Your task to perform on an android device: change the clock display to show seconds Image 0: 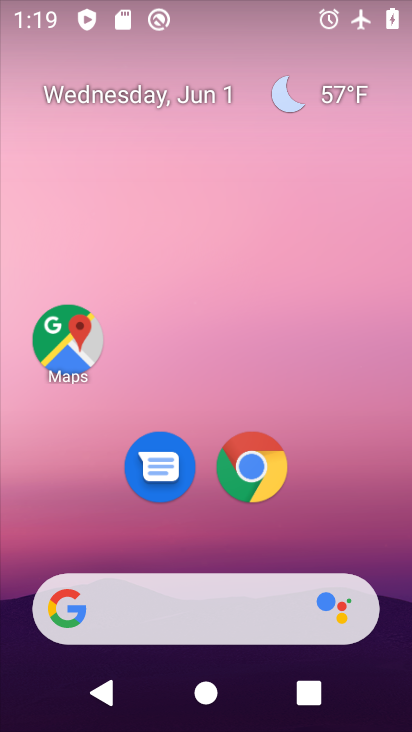
Step 0: drag from (380, 563) to (387, 184)
Your task to perform on an android device: change the clock display to show seconds Image 1: 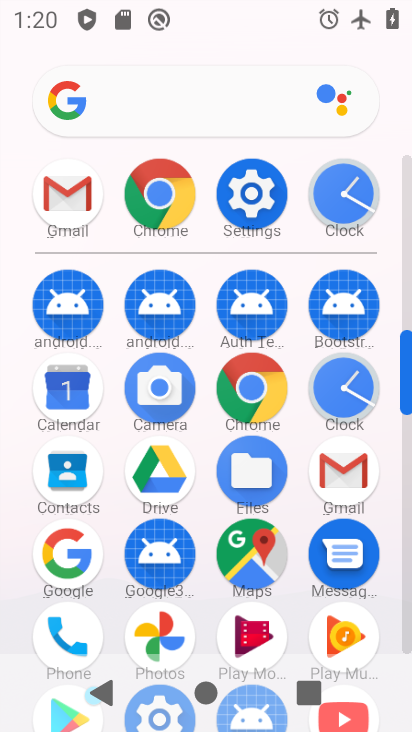
Step 1: click (352, 404)
Your task to perform on an android device: change the clock display to show seconds Image 2: 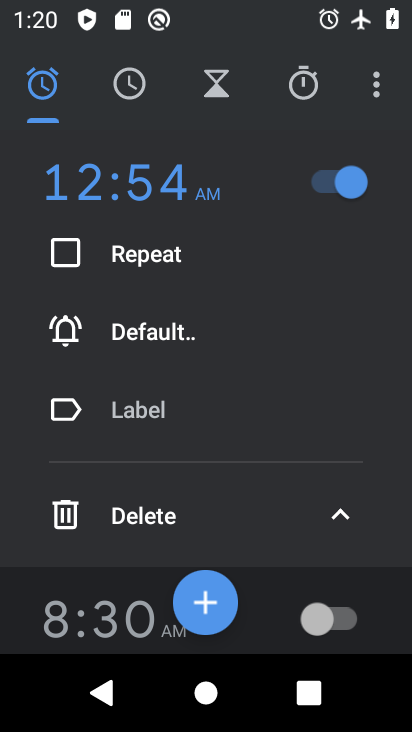
Step 2: click (376, 104)
Your task to perform on an android device: change the clock display to show seconds Image 3: 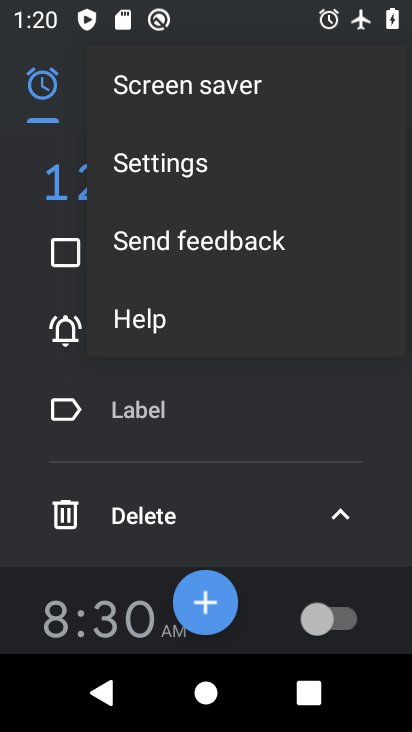
Step 3: click (251, 173)
Your task to perform on an android device: change the clock display to show seconds Image 4: 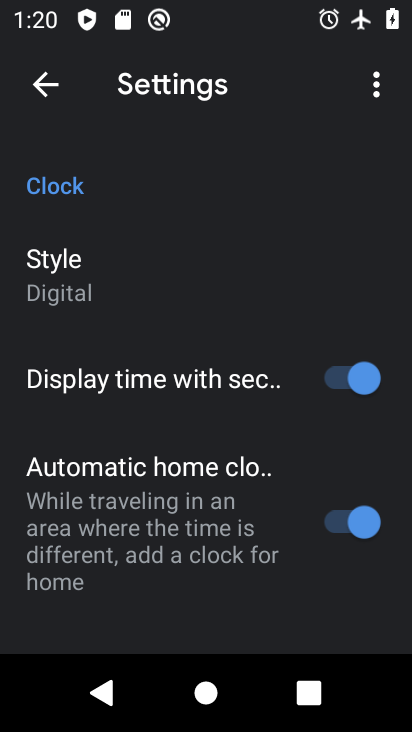
Step 4: task complete